Your task to perform on an android device: check out phone information Image 0: 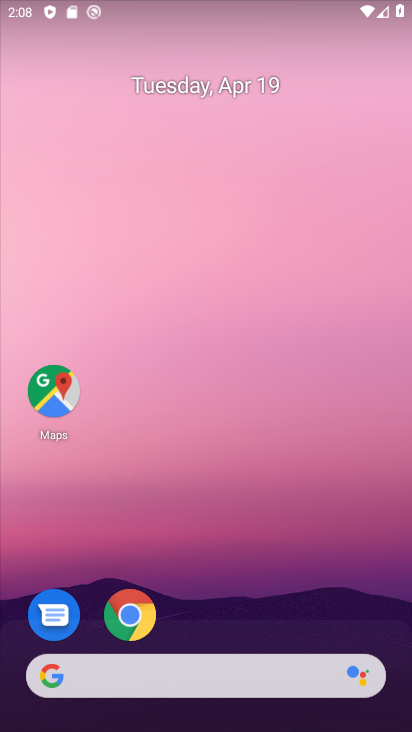
Step 0: drag from (191, 440) to (258, 104)
Your task to perform on an android device: check out phone information Image 1: 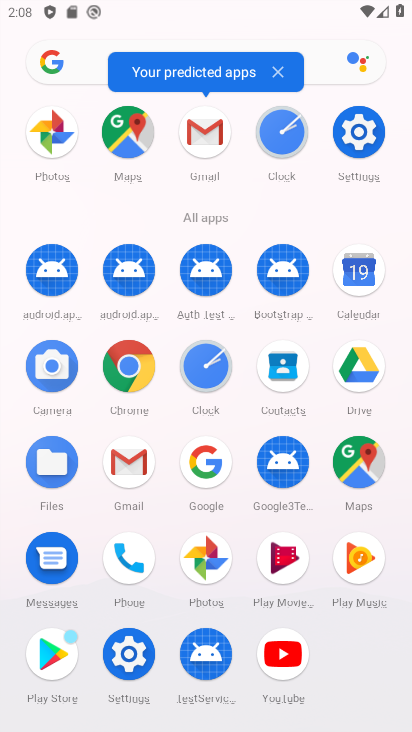
Step 1: click (138, 652)
Your task to perform on an android device: check out phone information Image 2: 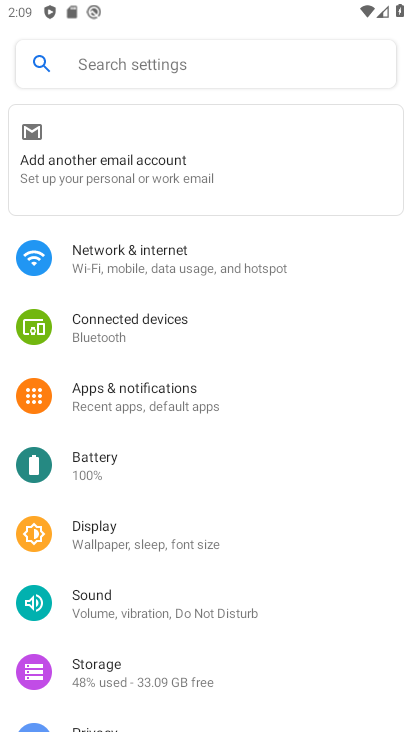
Step 2: drag from (159, 702) to (251, 141)
Your task to perform on an android device: check out phone information Image 3: 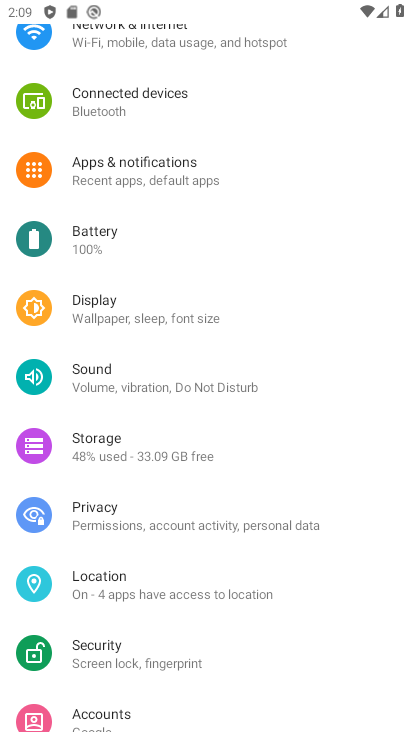
Step 3: drag from (181, 686) to (254, 38)
Your task to perform on an android device: check out phone information Image 4: 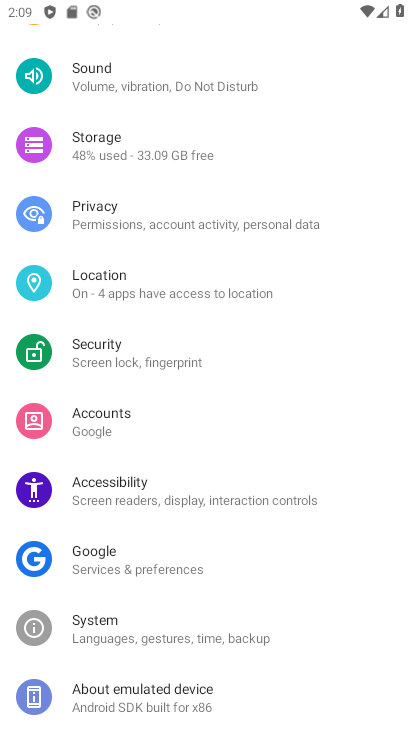
Step 4: click (153, 695)
Your task to perform on an android device: check out phone information Image 5: 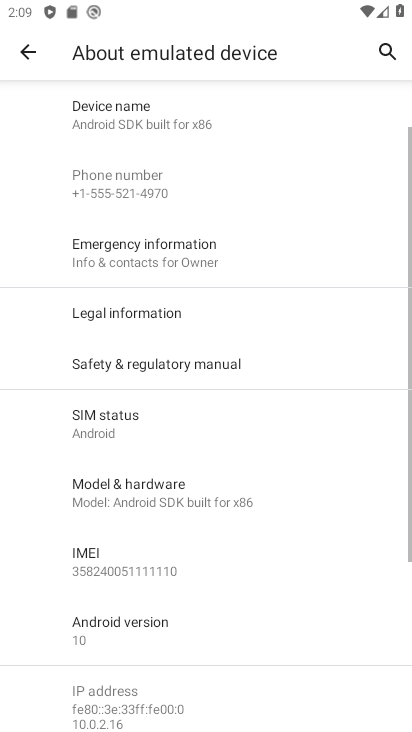
Step 5: task complete